Your task to perform on an android device: star an email in the gmail app Image 0: 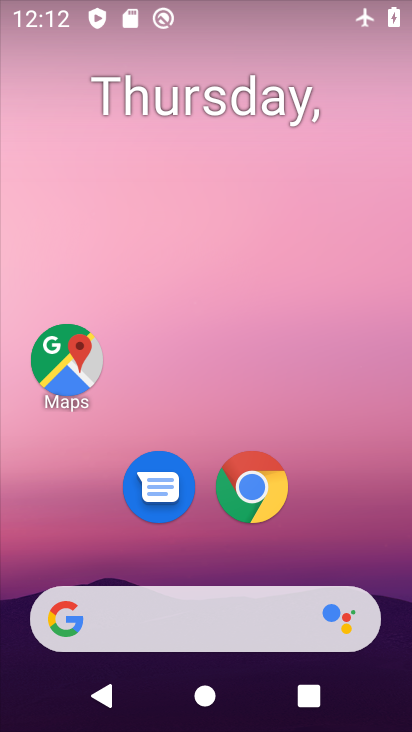
Step 0: drag from (332, 548) to (312, 278)
Your task to perform on an android device: star an email in the gmail app Image 1: 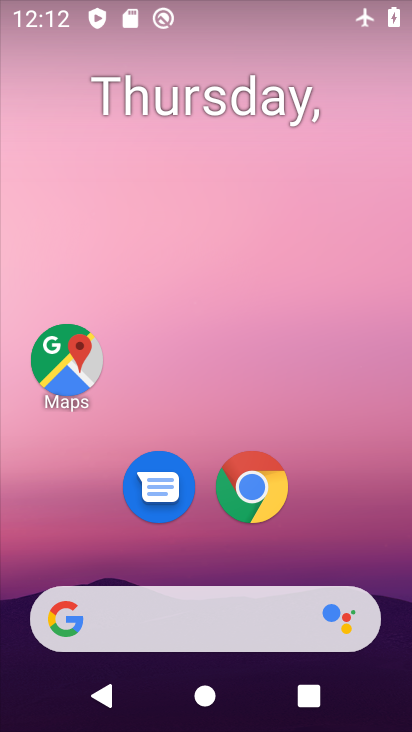
Step 1: drag from (375, 540) to (305, 124)
Your task to perform on an android device: star an email in the gmail app Image 2: 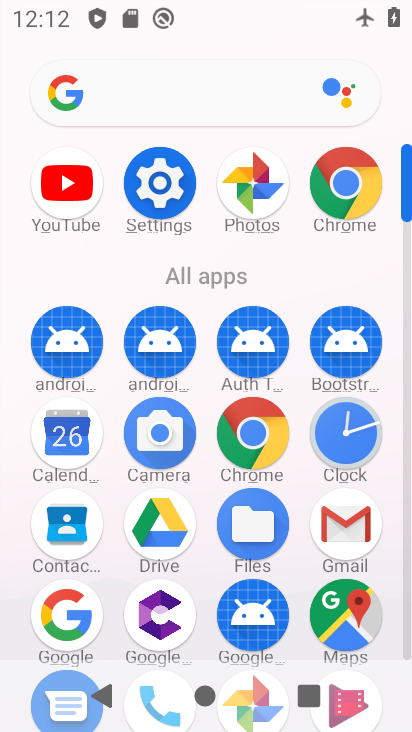
Step 2: click (347, 515)
Your task to perform on an android device: star an email in the gmail app Image 3: 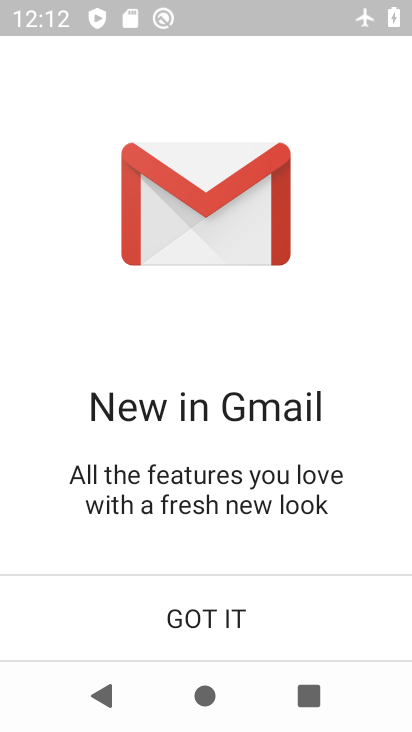
Step 3: drag from (241, 3) to (180, 713)
Your task to perform on an android device: star an email in the gmail app Image 4: 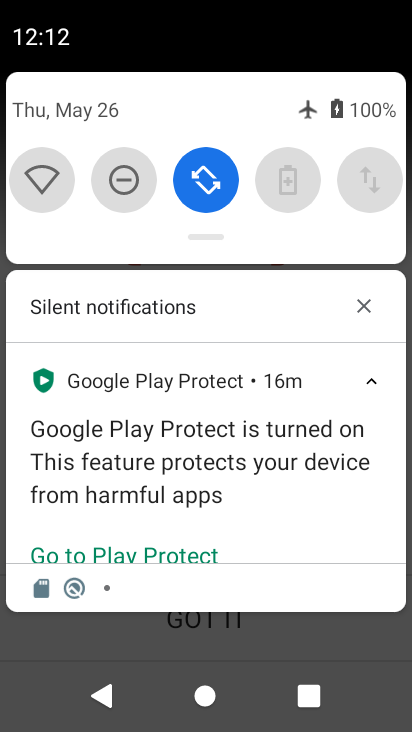
Step 4: drag from (194, 234) to (207, 723)
Your task to perform on an android device: star an email in the gmail app Image 5: 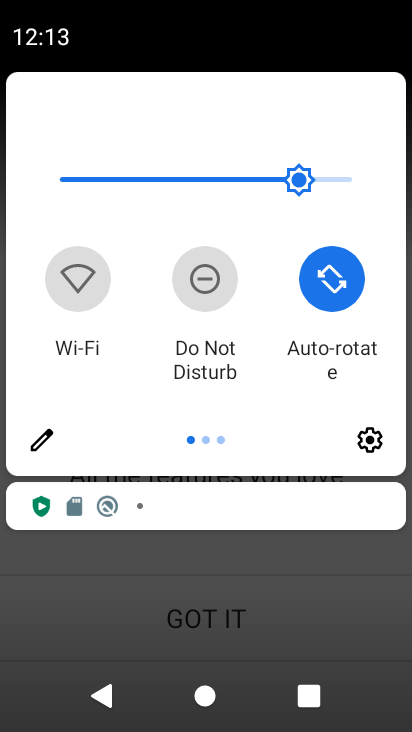
Step 5: drag from (399, 287) to (15, 235)
Your task to perform on an android device: star an email in the gmail app Image 6: 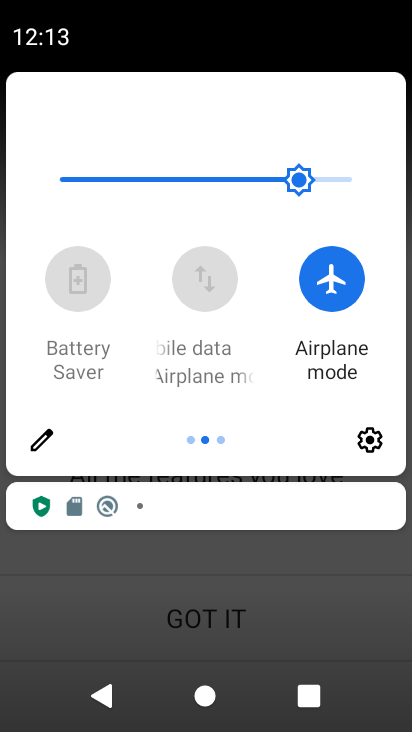
Step 6: click (349, 275)
Your task to perform on an android device: star an email in the gmail app Image 7: 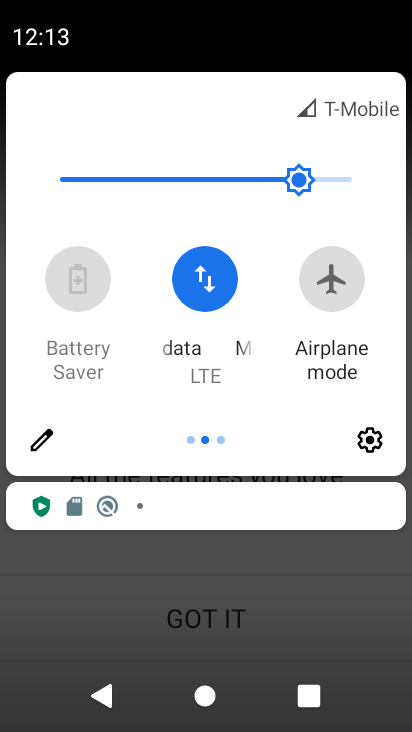
Step 7: drag from (284, 553) to (254, 388)
Your task to perform on an android device: star an email in the gmail app Image 8: 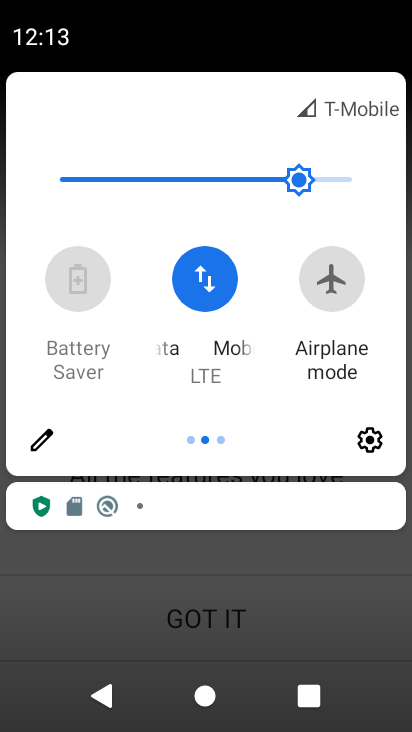
Step 8: drag from (294, 614) to (238, 7)
Your task to perform on an android device: star an email in the gmail app Image 9: 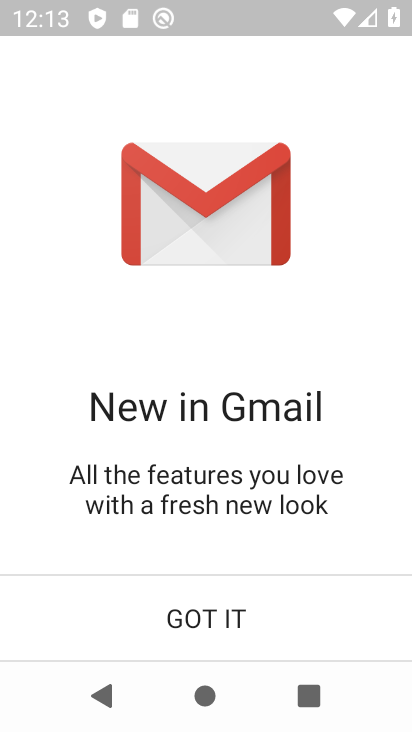
Step 9: click (264, 597)
Your task to perform on an android device: star an email in the gmail app Image 10: 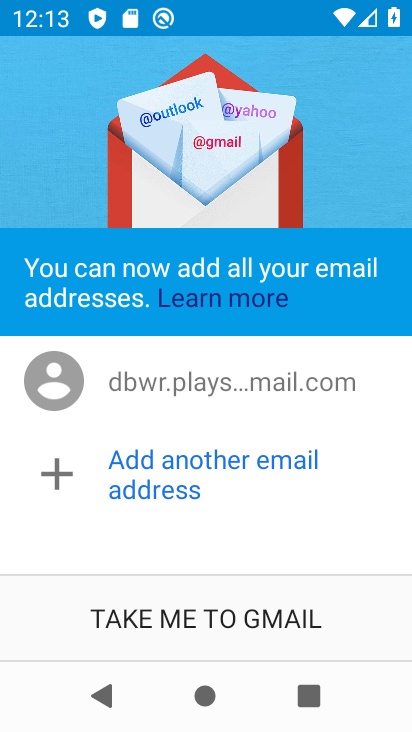
Step 10: click (264, 597)
Your task to perform on an android device: star an email in the gmail app Image 11: 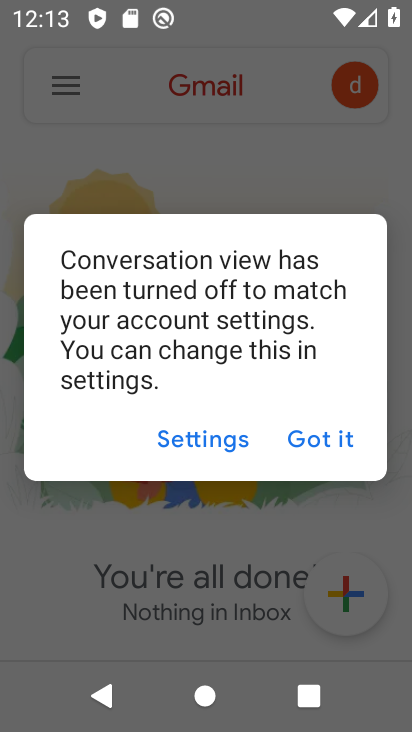
Step 11: click (306, 448)
Your task to perform on an android device: star an email in the gmail app Image 12: 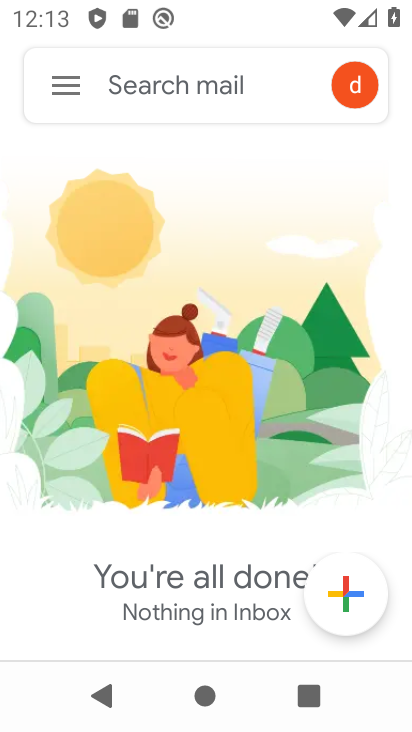
Step 12: click (59, 61)
Your task to perform on an android device: star an email in the gmail app Image 13: 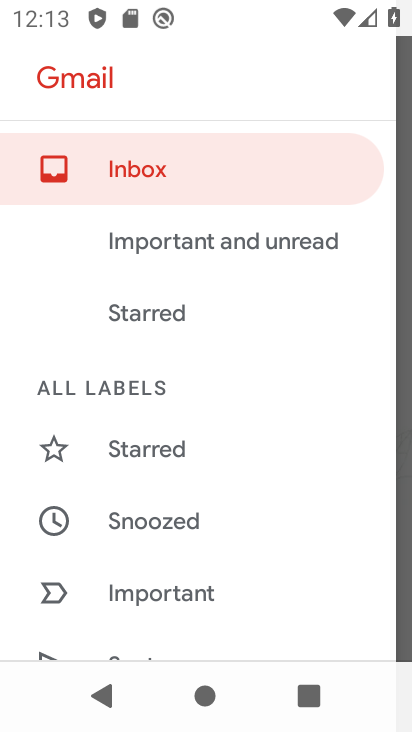
Step 13: task complete